Your task to perform on an android device: Open Google Chrome and open the bookmarks view Image 0: 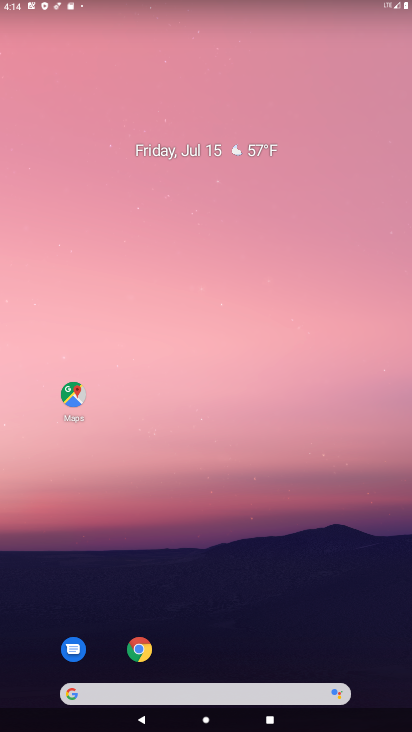
Step 0: click (135, 647)
Your task to perform on an android device: Open Google Chrome and open the bookmarks view Image 1: 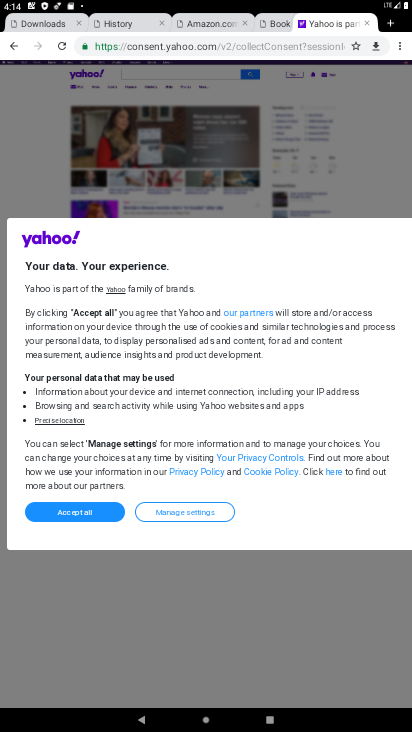
Step 1: click (397, 50)
Your task to perform on an android device: Open Google Chrome and open the bookmarks view Image 2: 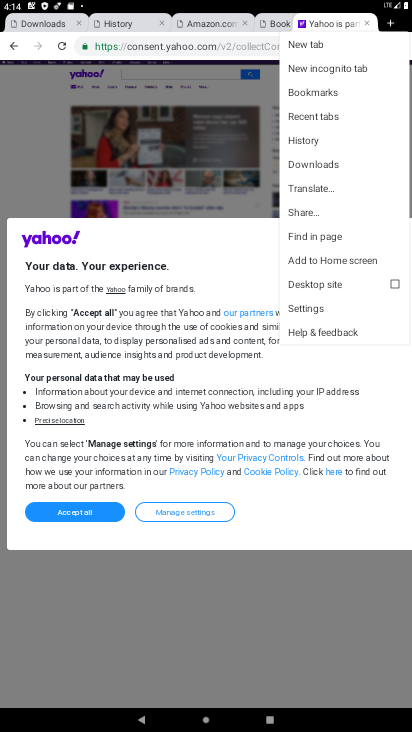
Step 2: click (316, 89)
Your task to perform on an android device: Open Google Chrome and open the bookmarks view Image 3: 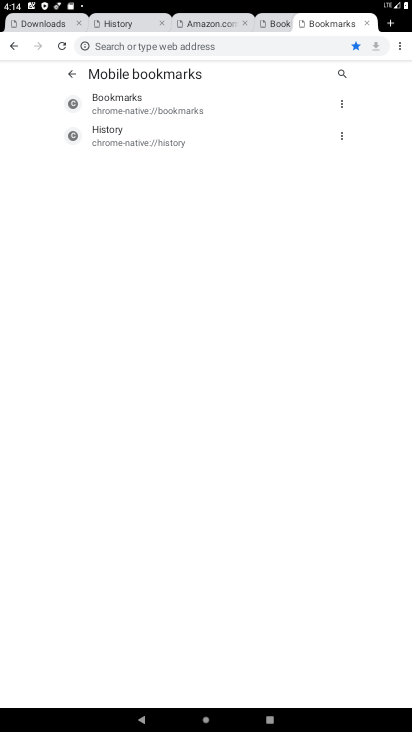
Step 3: task complete